Your task to perform on an android device: Open maps Image 0: 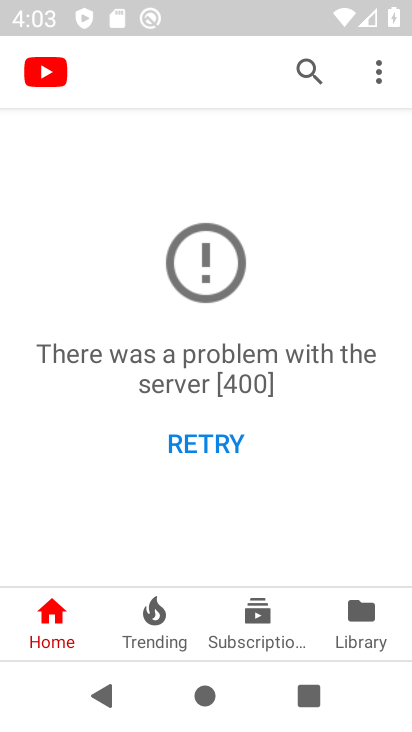
Step 0: press home button
Your task to perform on an android device: Open maps Image 1: 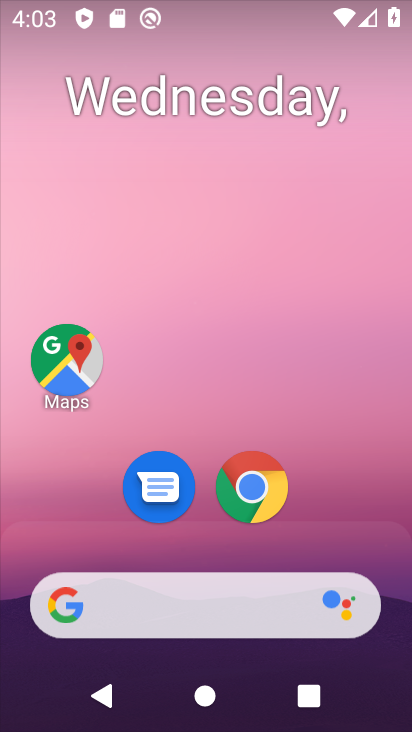
Step 1: click (65, 370)
Your task to perform on an android device: Open maps Image 2: 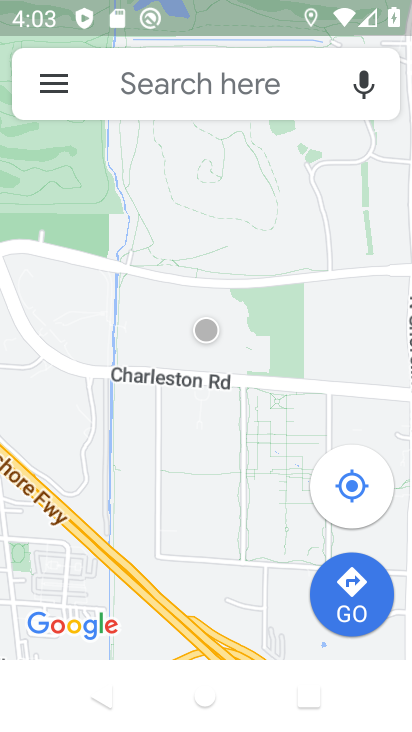
Step 2: task complete